Your task to perform on an android device: Open my contact list Image 0: 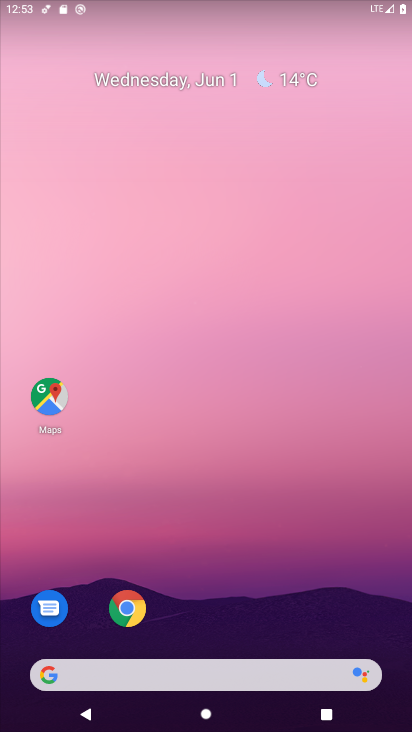
Step 0: drag from (207, 624) to (273, 170)
Your task to perform on an android device: Open my contact list Image 1: 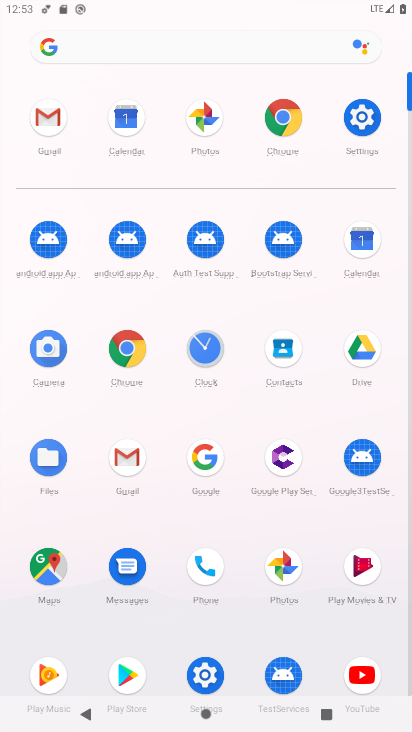
Step 1: click (362, 130)
Your task to perform on an android device: Open my contact list Image 2: 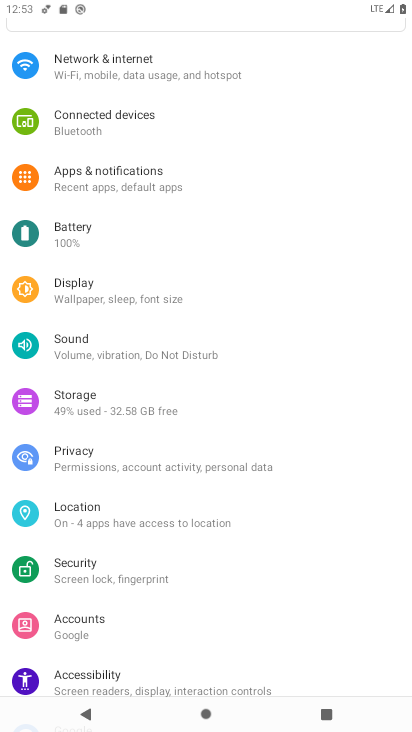
Step 2: press home button
Your task to perform on an android device: Open my contact list Image 3: 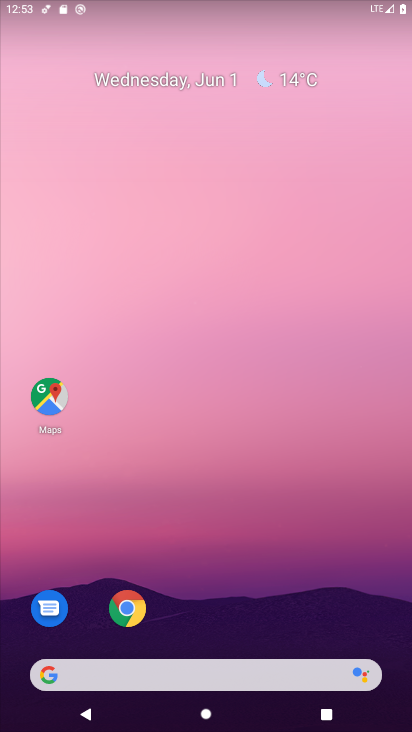
Step 3: drag from (243, 621) to (261, 121)
Your task to perform on an android device: Open my contact list Image 4: 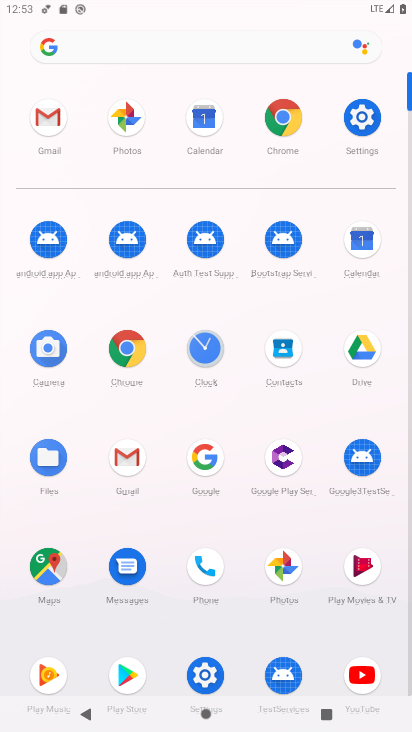
Step 4: click (272, 361)
Your task to perform on an android device: Open my contact list Image 5: 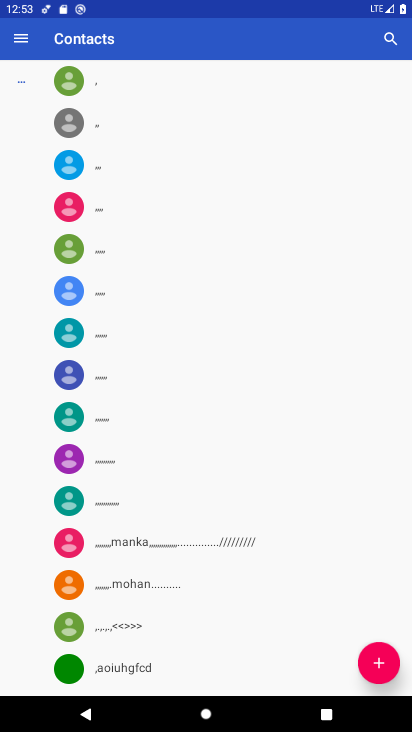
Step 5: task complete